Your task to perform on an android device: Open settings on Google Maps Image 0: 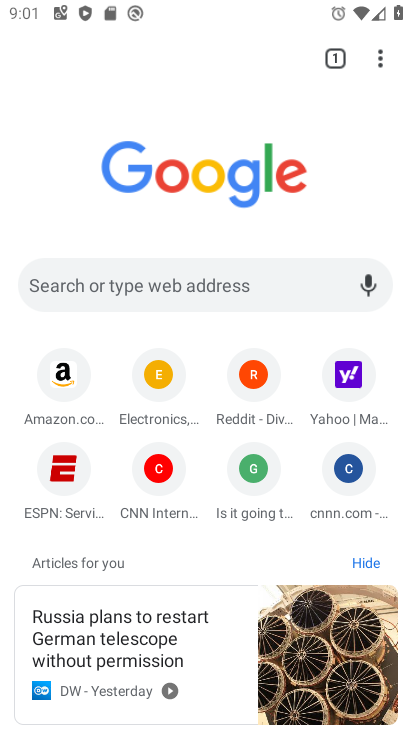
Step 0: press home button
Your task to perform on an android device: Open settings on Google Maps Image 1: 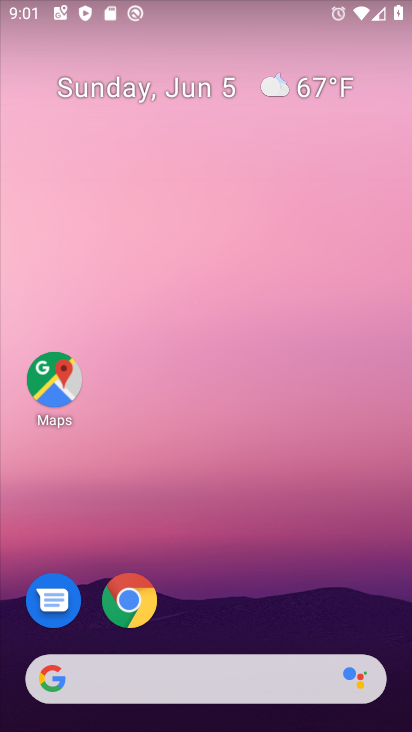
Step 1: drag from (398, 601) to (409, 490)
Your task to perform on an android device: Open settings on Google Maps Image 2: 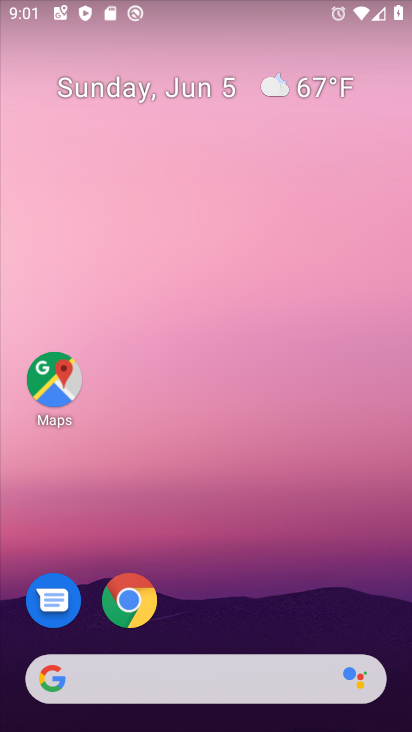
Step 2: drag from (391, 653) to (276, 59)
Your task to perform on an android device: Open settings on Google Maps Image 3: 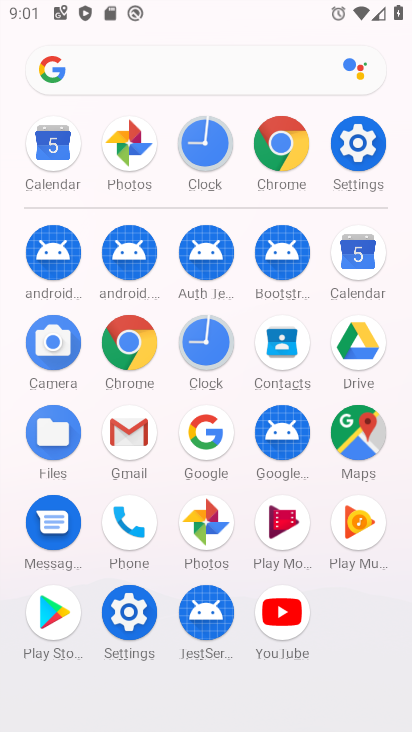
Step 3: click (372, 452)
Your task to perform on an android device: Open settings on Google Maps Image 4: 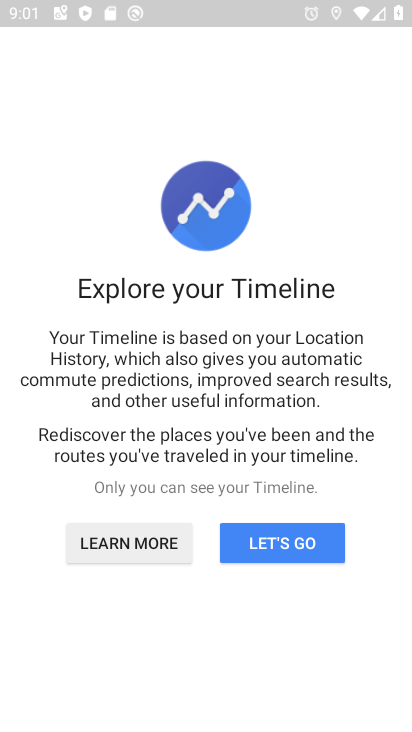
Step 4: press back button
Your task to perform on an android device: Open settings on Google Maps Image 5: 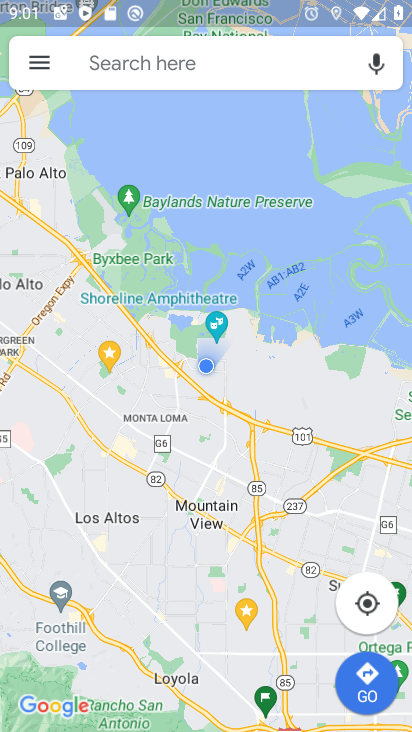
Step 5: click (43, 60)
Your task to perform on an android device: Open settings on Google Maps Image 6: 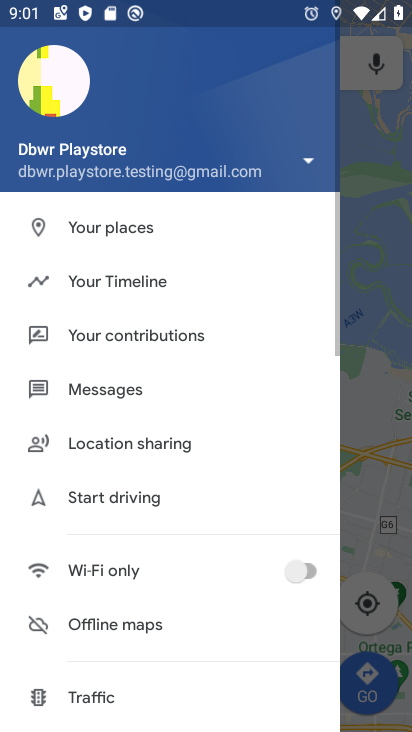
Step 6: drag from (118, 648) to (145, 205)
Your task to perform on an android device: Open settings on Google Maps Image 7: 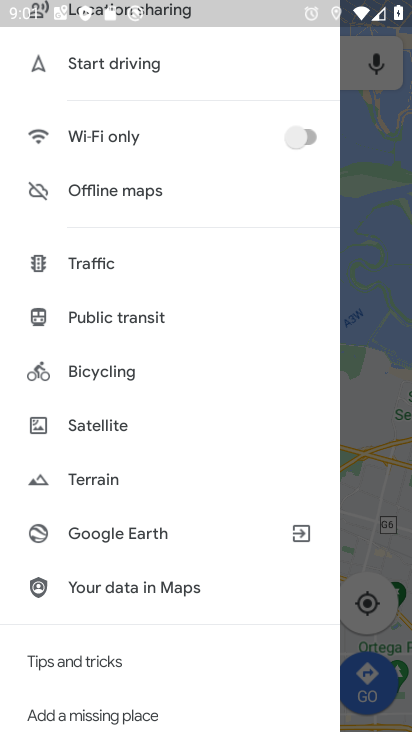
Step 7: drag from (102, 660) to (152, 206)
Your task to perform on an android device: Open settings on Google Maps Image 8: 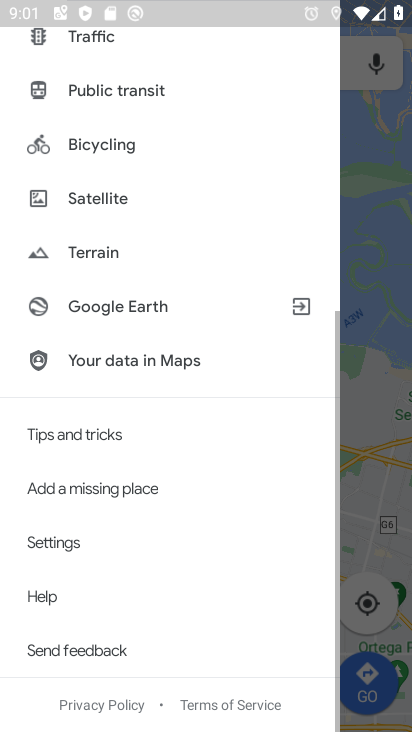
Step 8: click (82, 545)
Your task to perform on an android device: Open settings on Google Maps Image 9: 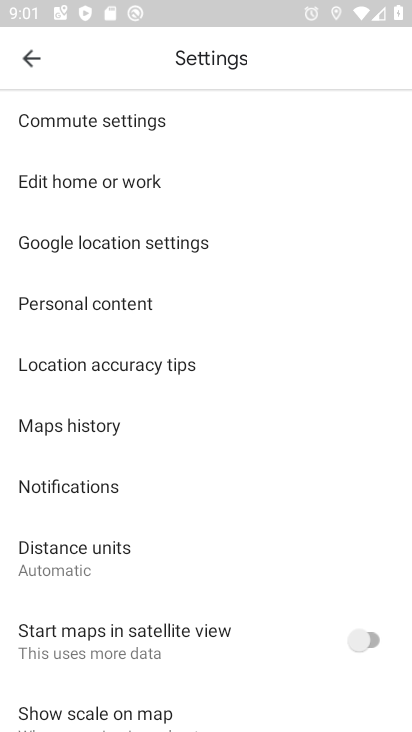
Step 9: task complete